Your task to perform on an android device: toggle sleep mode Image 0: 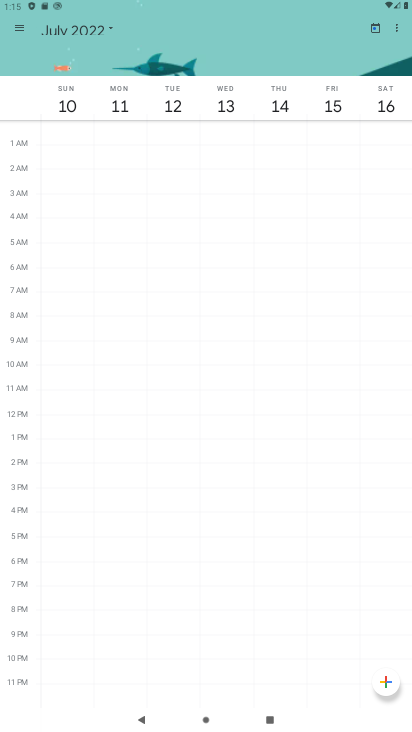
Step 0: press home button
Your task to perform on an android device: toggle sleep mode Image 1: 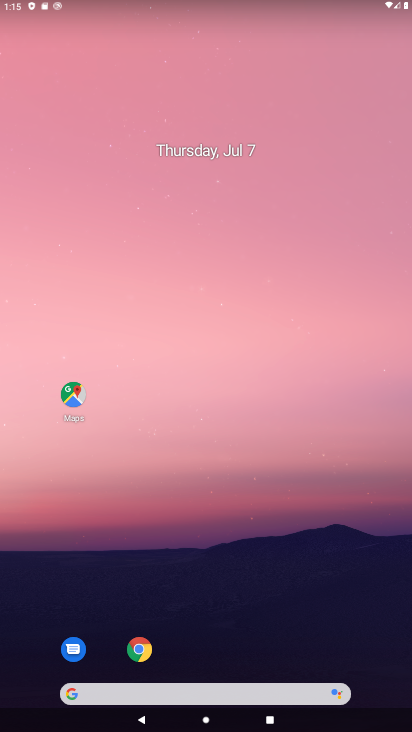
Step 1: drag from (361, 656) to (325, 283)
Your task to perform on an android device: toggle sleep mode Image 2: 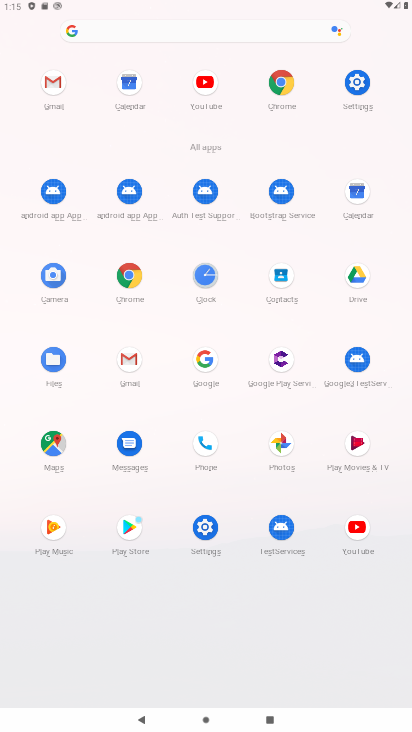
Step 2: click (203, 528)
Your task to perform on an android device: toggle sleep mode Image 3: 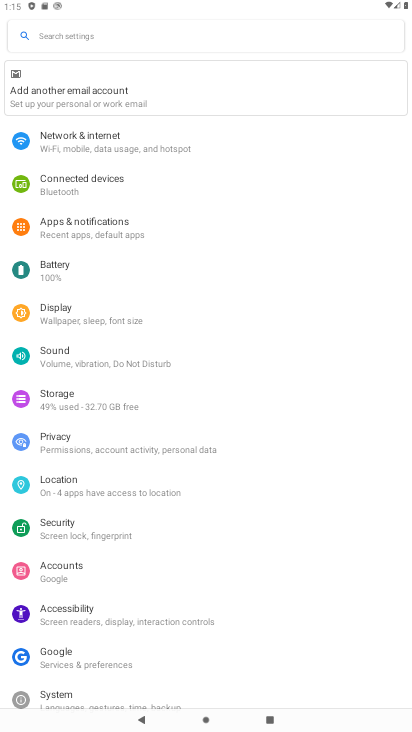
Step 3: click (66, 318)
Your task to perform on an android device: toggle sleep mode Image 4: 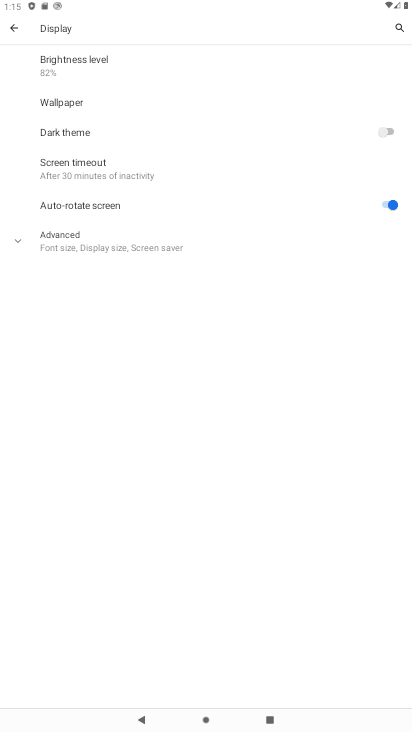
Step 4: click (24, 243)
Your task to perform on an android device: toggle sleep mode Image 5: 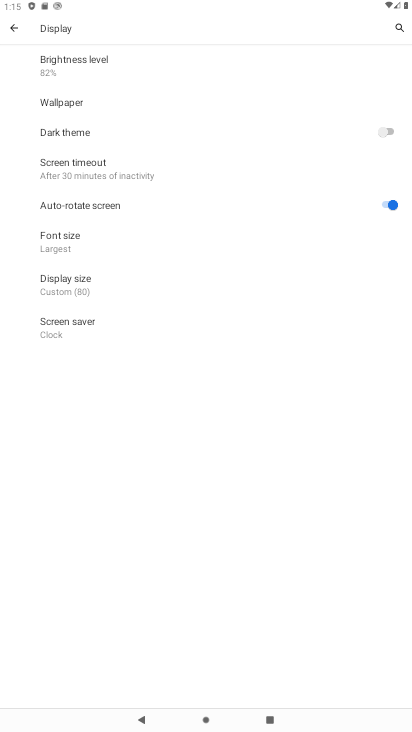
Step 5: task complete